Your task to perform on an android device: Open sound settings Image 0: 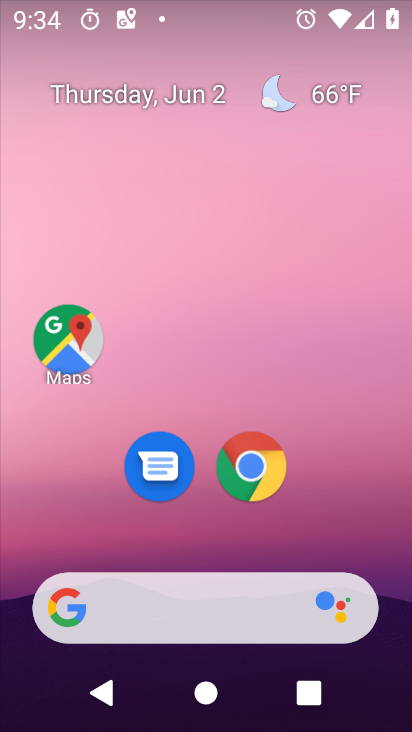
Step 0: drag from (22, 694) to (367, 119)
Your task to perform on an android device: Open sound settings Image 1: 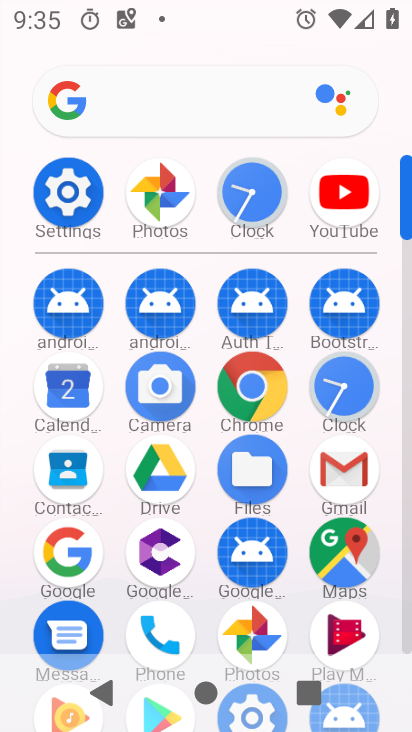
Step 1: click (64, 190)
Your task to perform on an android device: Open sound settings Image 2: 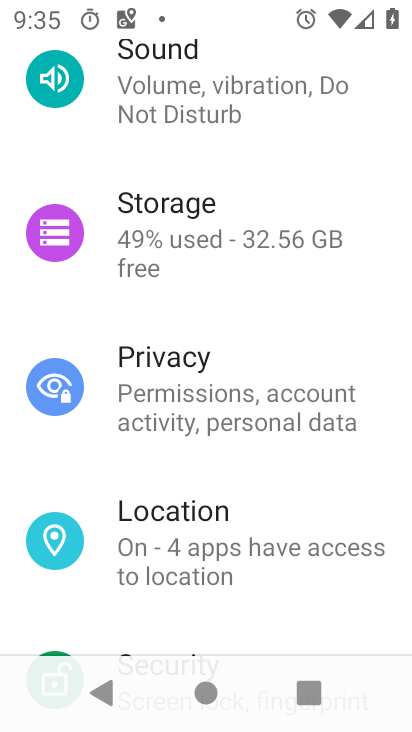
Step 2: click (151, 85)
Your task to perform on an android device: Open sound settings Image 3: 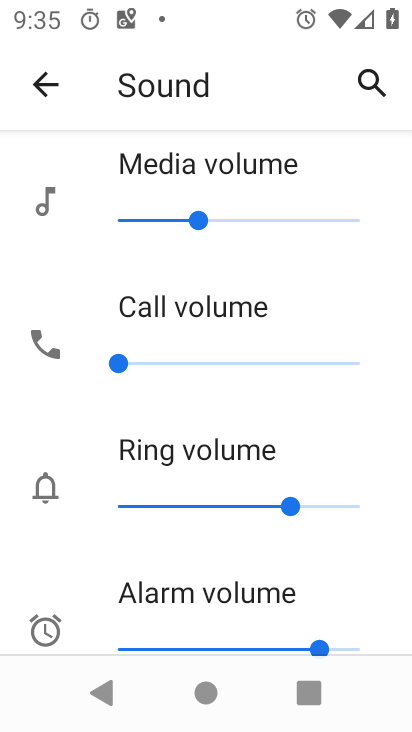
Step 3: task complete